Your task to perform on an android device: Show me popular games on the Play Store Image 0: 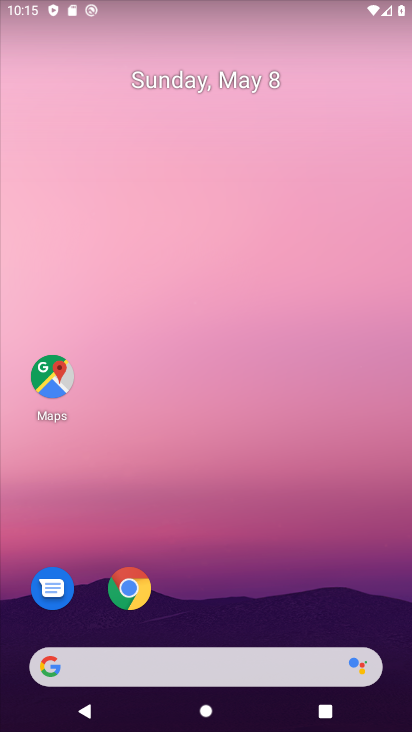
Step 0: drag from (184, 647) to (282, 134)
Your task to perform on an android device: Show me popular games on the Play Store Image 1: 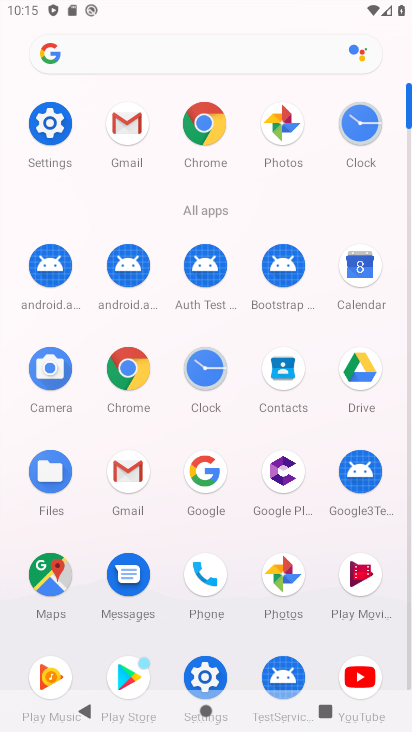
Step 1: click (132, 677)
Your task to perform on an android device: Show me popular games on the Play Store Image 2: 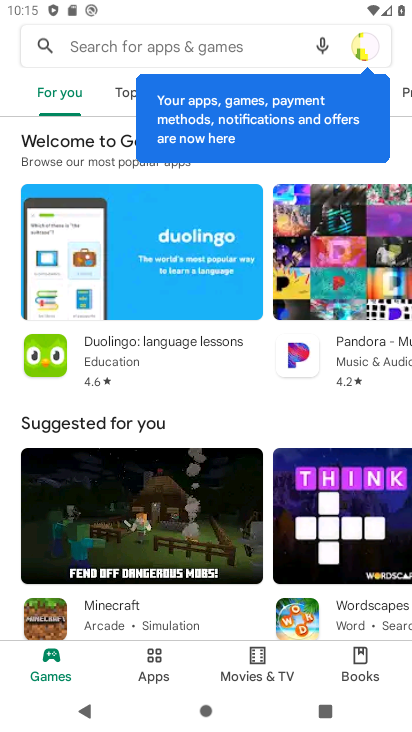
Step 2: click (396, 157)
Your task to perform on an android device: Show me popular games on the Play Store Image 3: 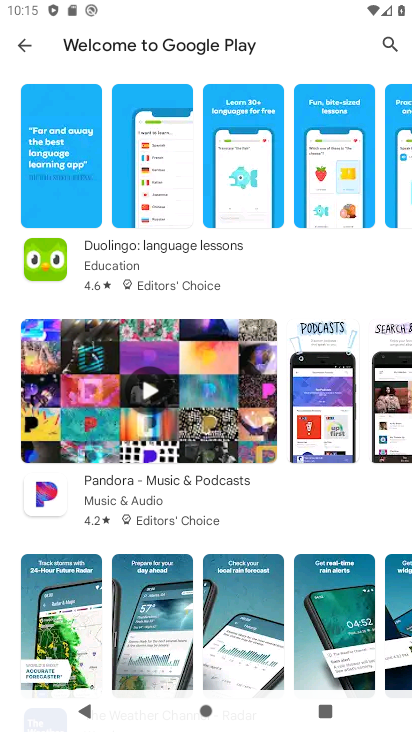
Step 3: click (17, 41)
Your task to perform on an android device: Show me popular games on the Play Store Image 4: 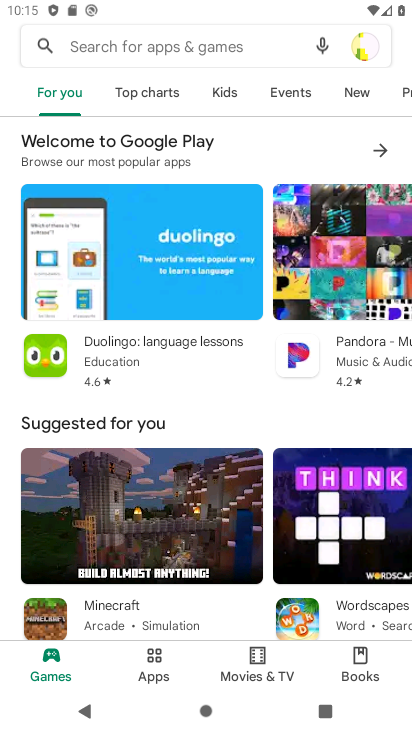
Step 4: drag from (366, 104) to (143, 106)
Your task to perform on an android device: Show me popular games on the Play Store Image 5: 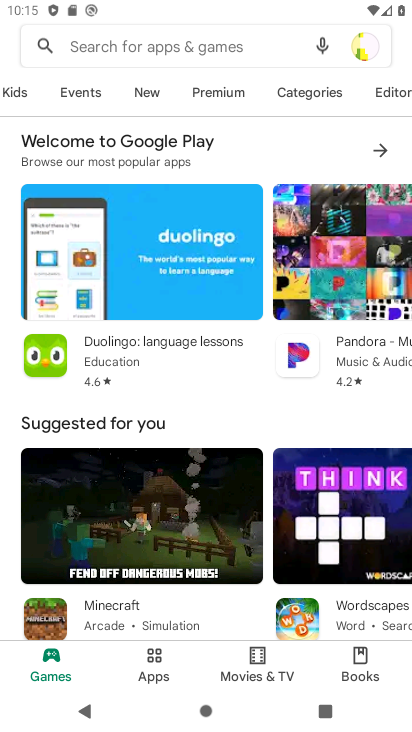
Step 5: drag from (371, 112) to (350, 63)
Your task to perform on an android device: Show me popular games on the Play Store Image 6: 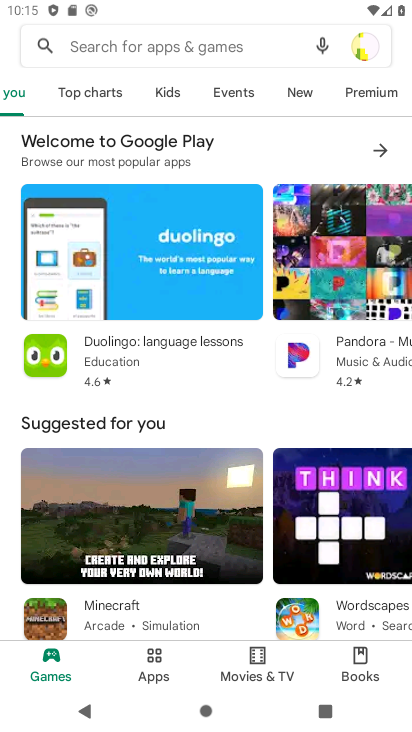
Step 6: drag from (217, 593) to (269, 436)
Your task to perform on an android device: Show me popular games on the Play Store Image 7: 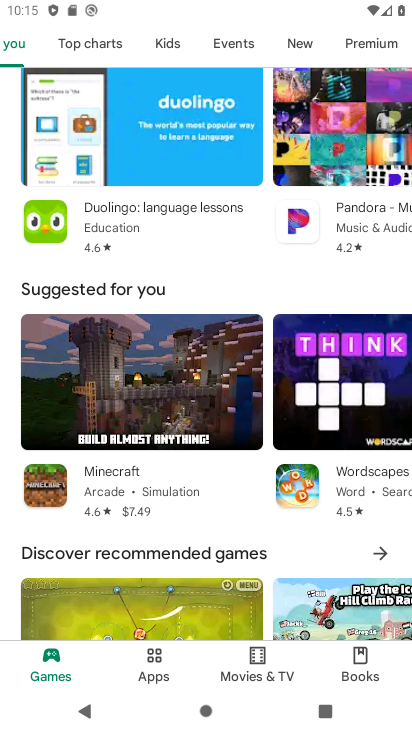
Step 7: drag from (218, 565) to (339, 153)
Your task to perform on an android device: Show me popular games on the Play Store Image 8: 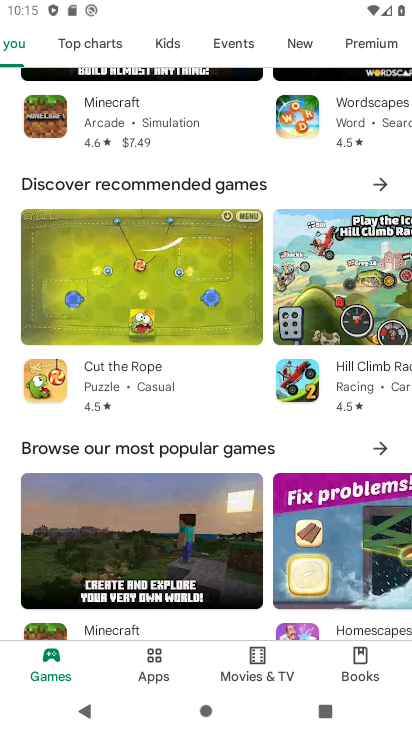
Step 8: drag from (215, 575) to (254, 425)
Your task to perform on an android device: Show me popular games on the Play Store Image 9: 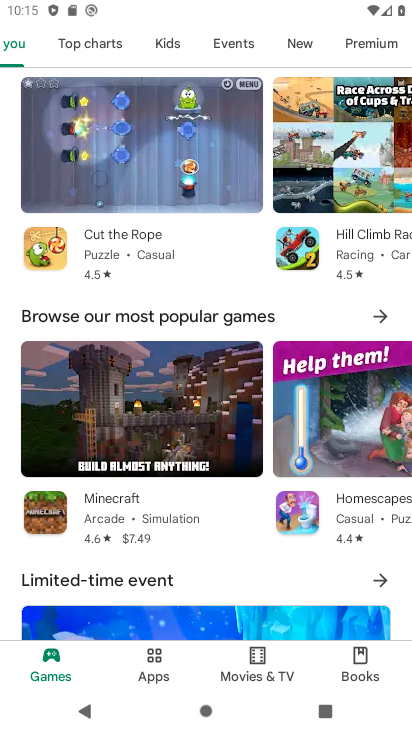
Step 9: click (376, 324)
Your task to perform on an android device: Show me popular games on the Play Store Image 10: 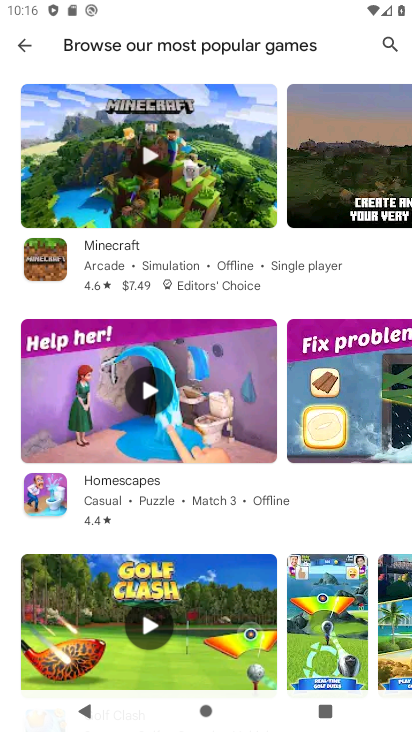
Step 10: task complete